Your task to perform on an android device: delete location history Image 0: 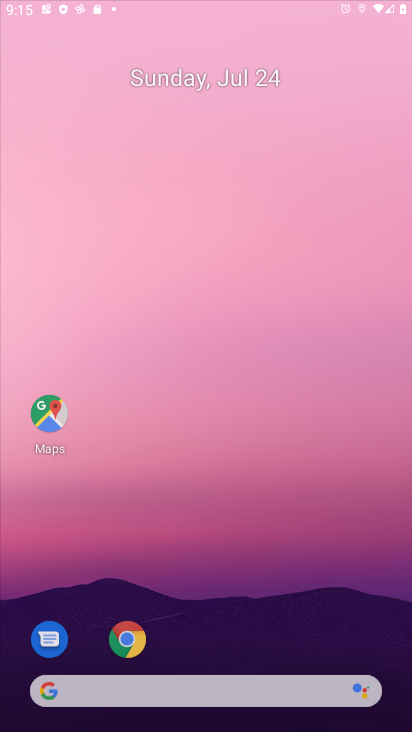
Step 0: drag from (268, 691) to (214, 68)
Your task to perform on an android device: delete location history Image 1: 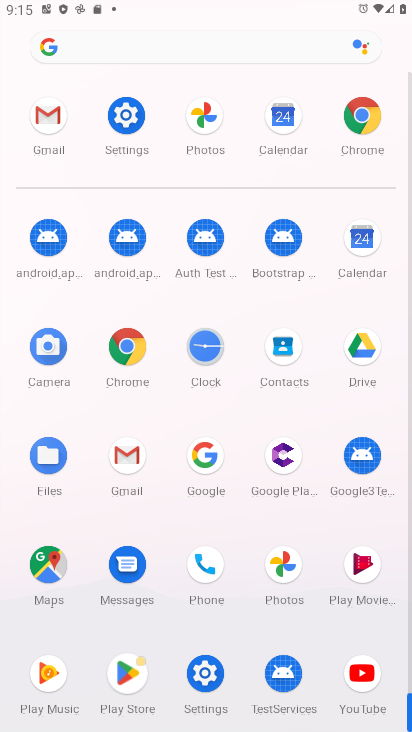
Step 1: drag from (294, 501) to (256, 189)
Your task to perform on an android device: delete location history Image 2: 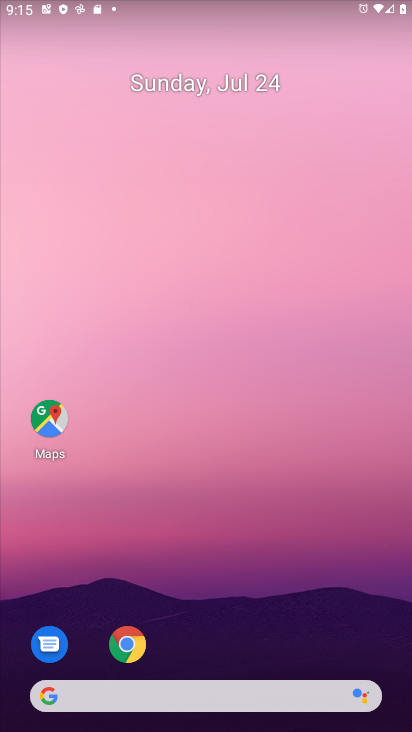
Step 2: drag from (306, 580) to (326, 165)
Your task to perform on an android device: delete location history Image 3: 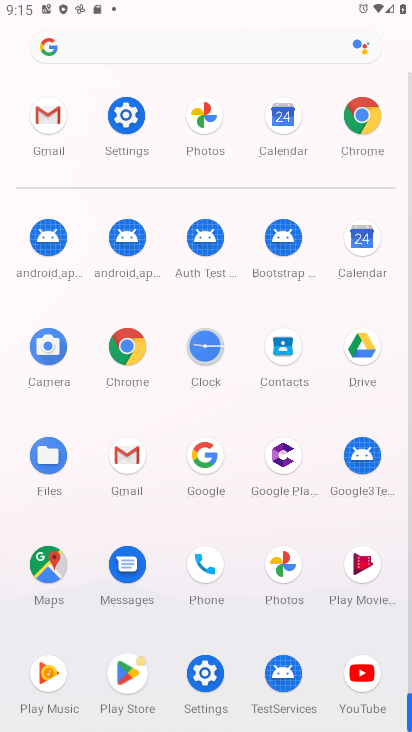
Step 3: click (120, 122)
Your task to perform on an android device: delete location history Image 4: 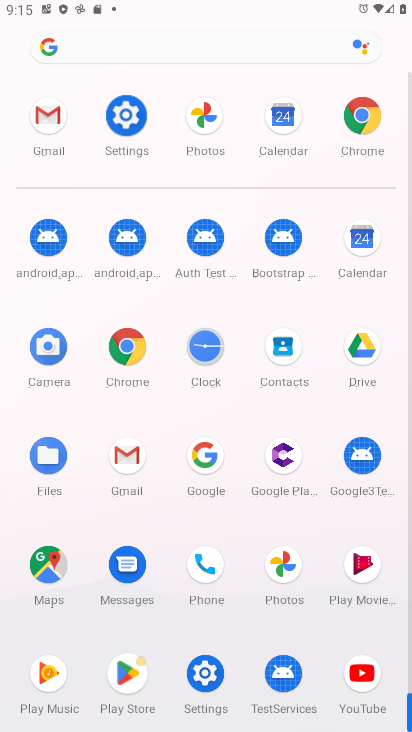
Step 4: click (126, 120)
Your task to perform on an android device: delete location history Image 5: 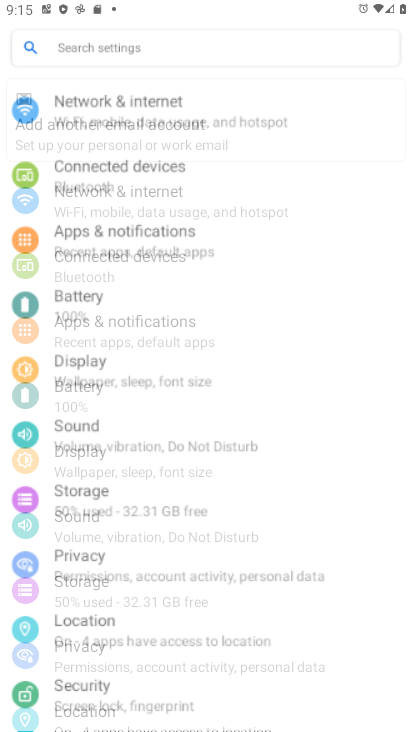
Step 5: click (125, 123)
Your task to perform on an android device: delete location history Image 6: 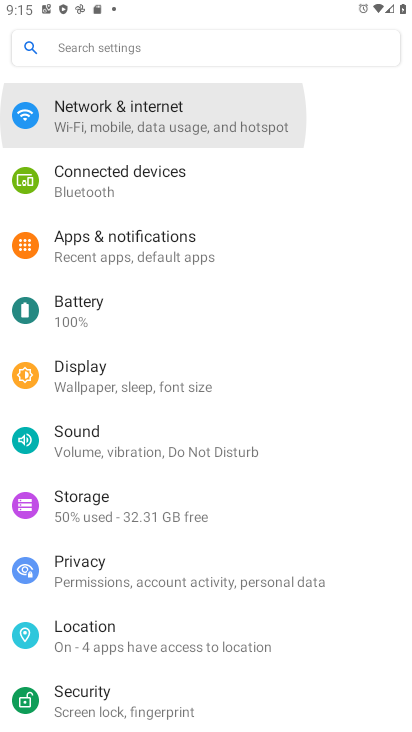
Step 6: click (124, 120)
Your task to perform on an android device: delete location history Image 7: 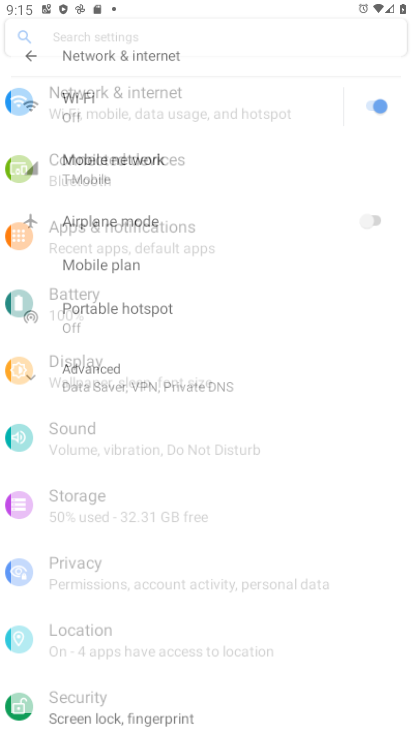
Step 7: drag from (179, 545) to (165, 251)
Your task to perform on an android device: delete location history Image 8: 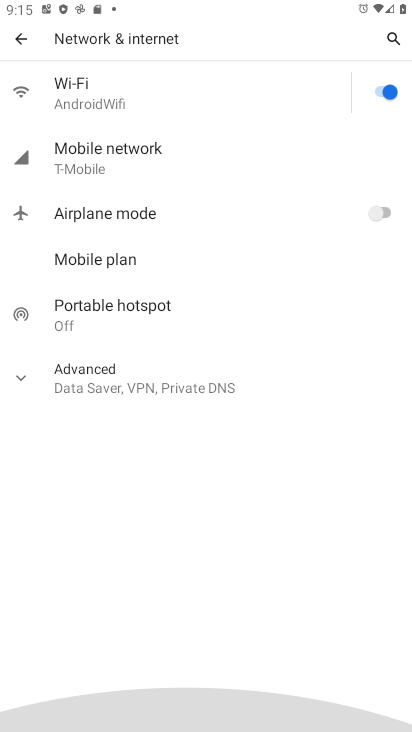
Step 8: drag from (132, 483) to (132, 251)
Your task to perform on an android device: delete location history Image 9: 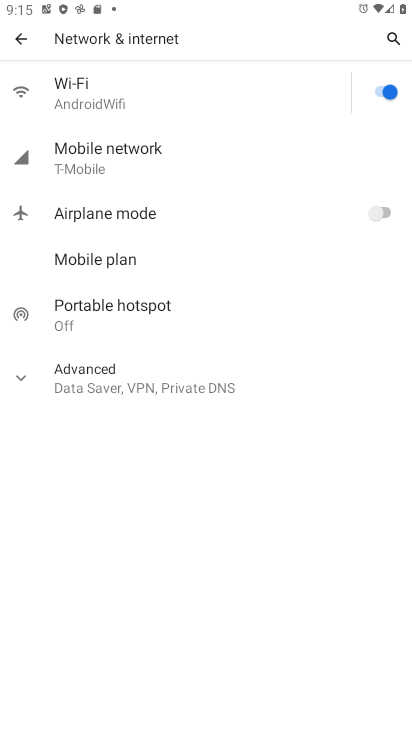
Step 9: click (19, 34)
Your task to perform on an android device: delete location history Image 10: 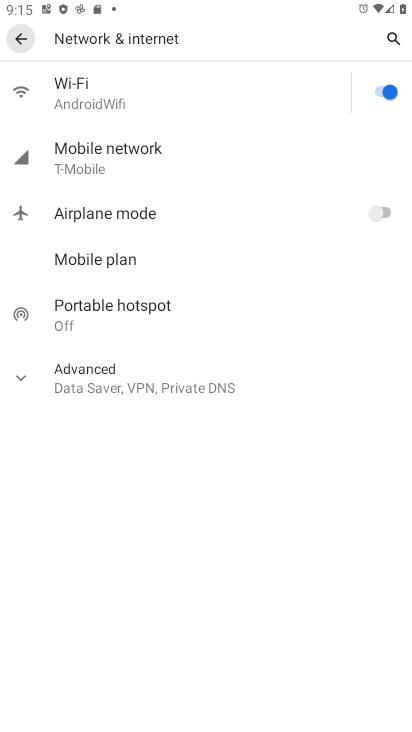
Step 10: click (19, 34)
Your task to perform on an android device: delete location history Image 11: 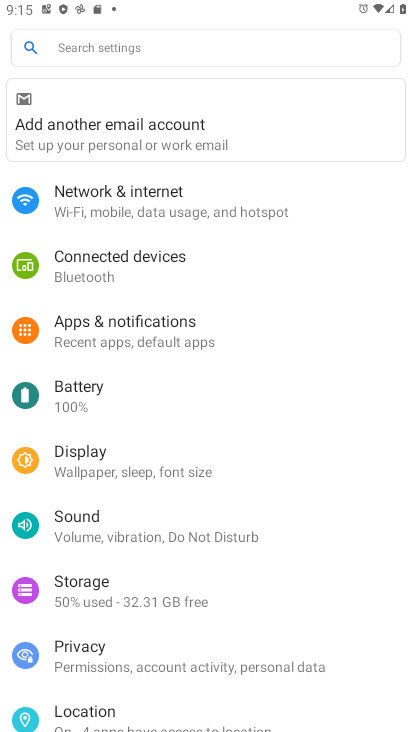
Step 11: drag from (190, 540) to (187, 197)
Your task to perform on an android device: delete location history Image 12: 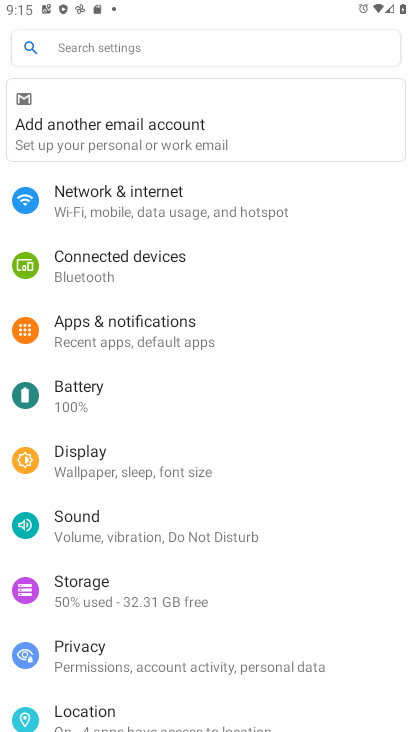
Step 12: drag from (171, 492) to (181, 268)
Your task to perform on an android device: delete location history Image 13: 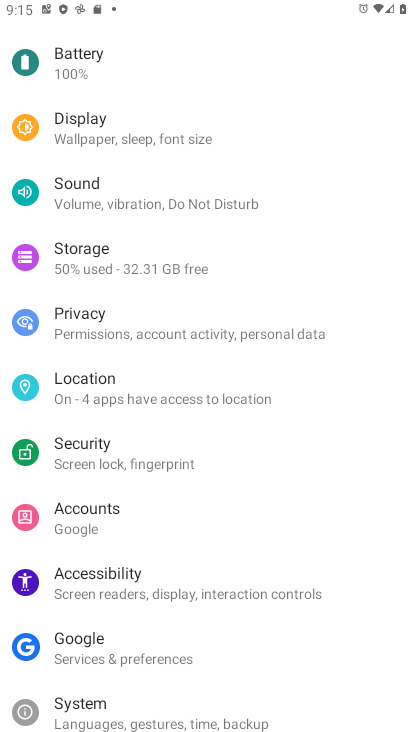
Step 13: click (73, 382)
Your task to perform on an android device: delete location history Image 14: 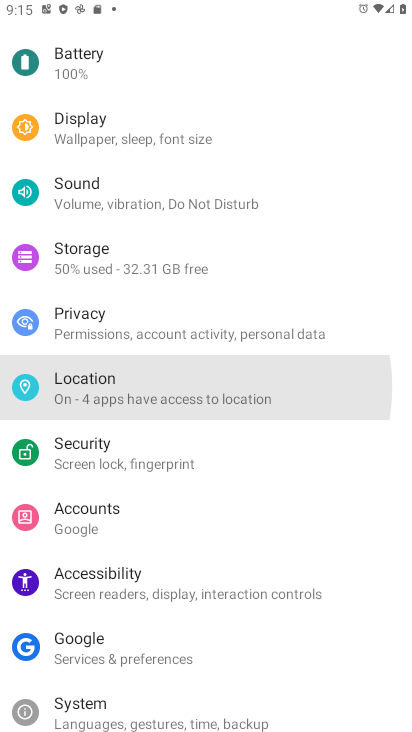
Step 14: click (76, 382)
Your task to perform on an android device: delete location history Image 15: 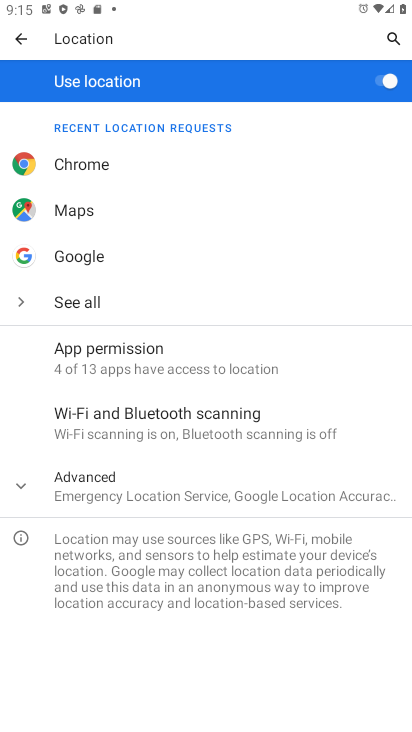
Step 15: click (92, 485)
Your task to perform on an android device: delete location history Image 16: 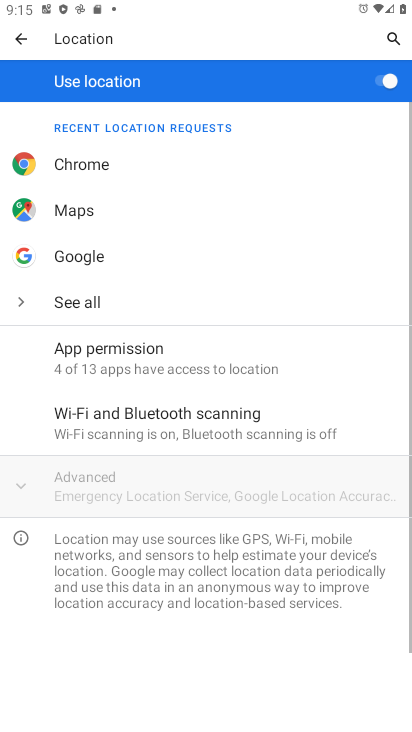
Step 16: click (92, 485)
Your task to perform on an android device: delete location history Image 17: 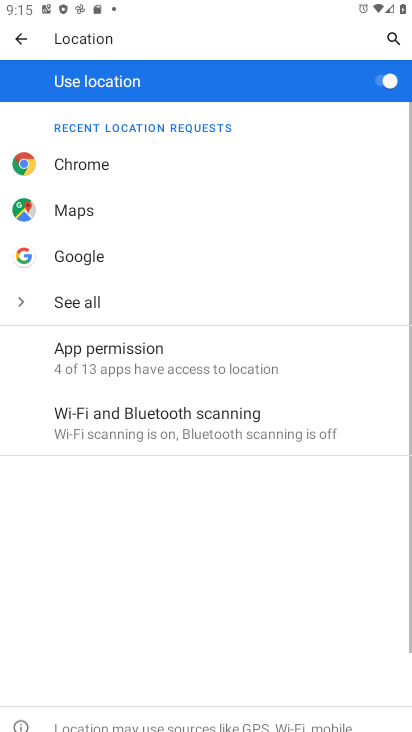
Step 17: click (86, 482)
Your task to perform on an android device: delete location history Image 18: 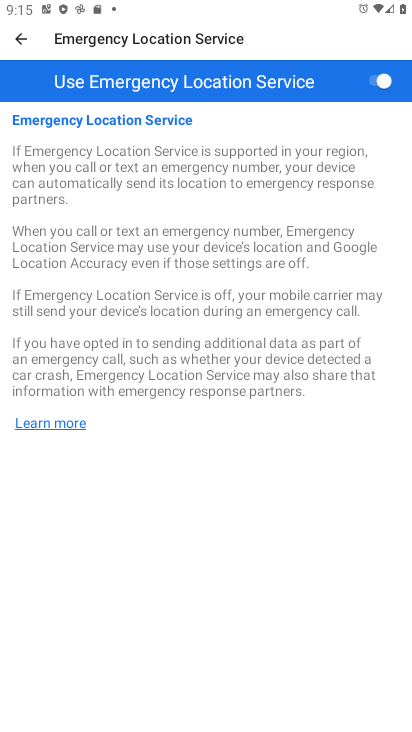
Step 18: click (9, 37)
Your task to perform on an android device: delete location history Image 19: 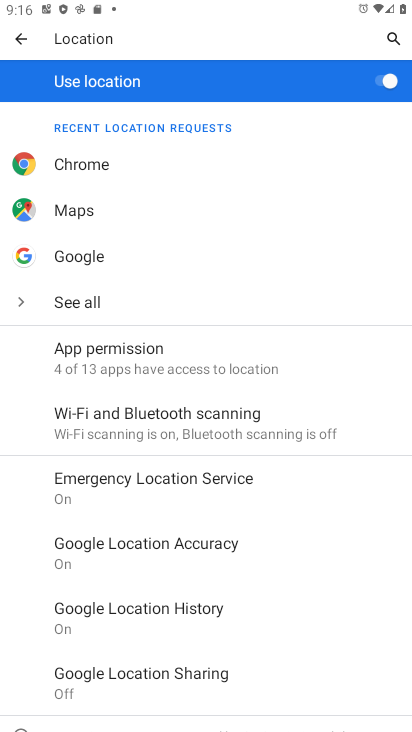
Step 19: click (165, 608)
Your task to perform on an android device: delete location history Image 20: 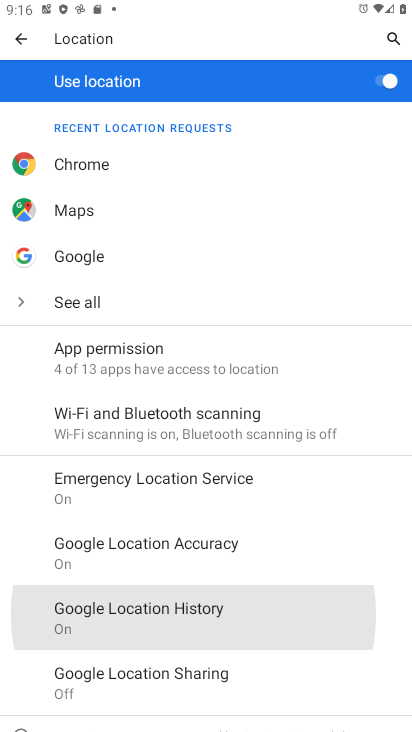
Step 20: click (165, 608)
Your task to perform on an android device: delete location history Image 21: 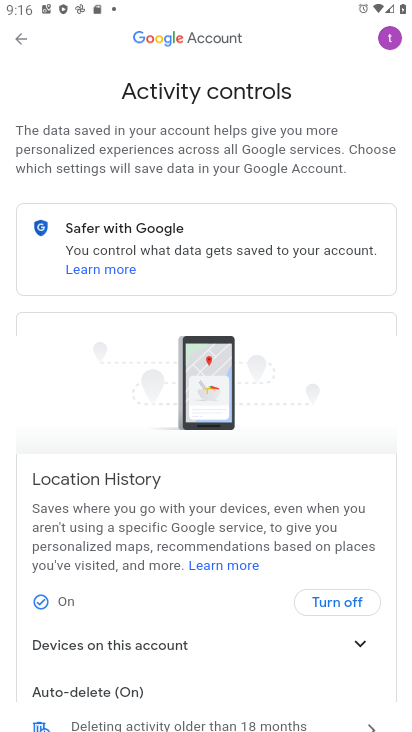
Step 21: click (348, 600)
Your task to perform on an android device: delete location history Image 22: 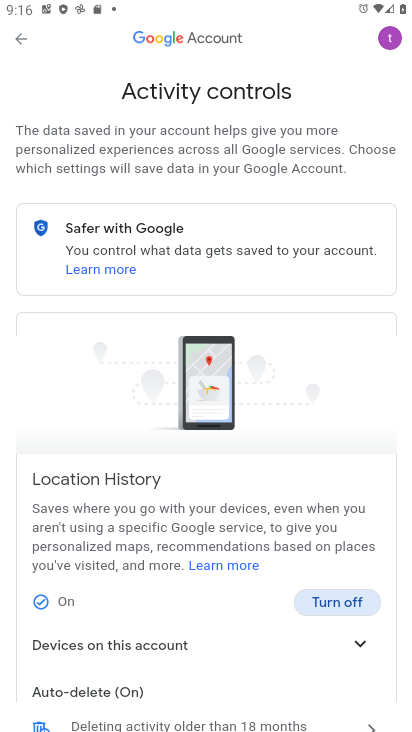
Step 22: task complete